Your task to perform on an android device: delete location history Image 0: 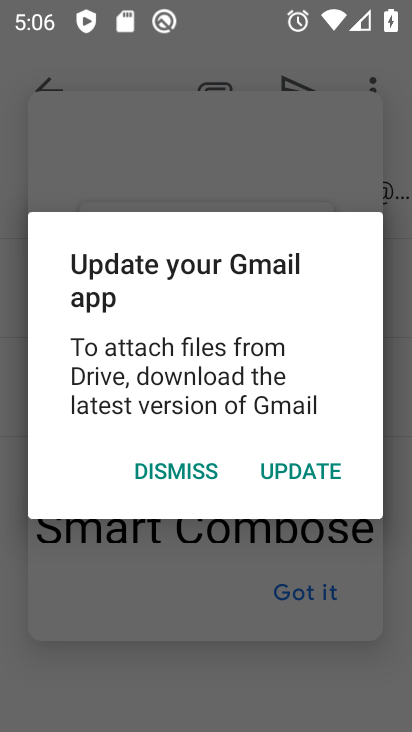
Step 0: press home button
Your task to perform on an android device: delete location history Image 1: 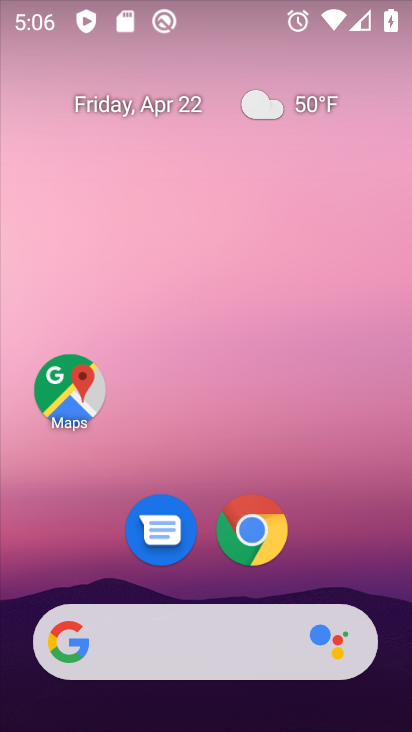
Step 1: drag from (317, 553) to (313, 72)
Your task to perform on an android device: delete location history Image 2: 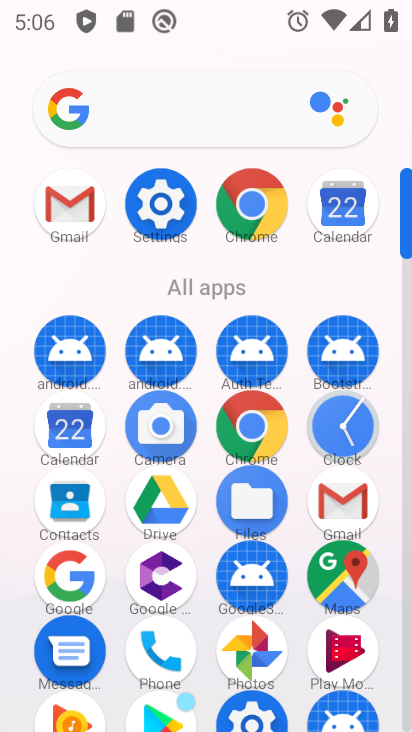
Step 2: drag from (286, 310) to (300, 75)
Your task to perform on an android device: delete location history Image 3: 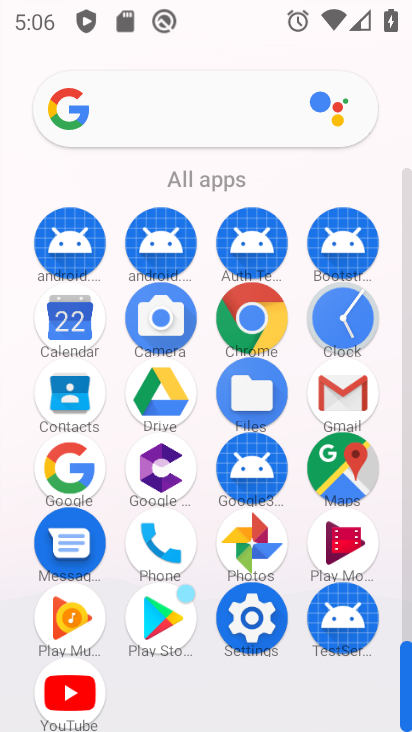
Step 3: click (322, 473)
Your task to perform on an android device: delete location history Image 4: 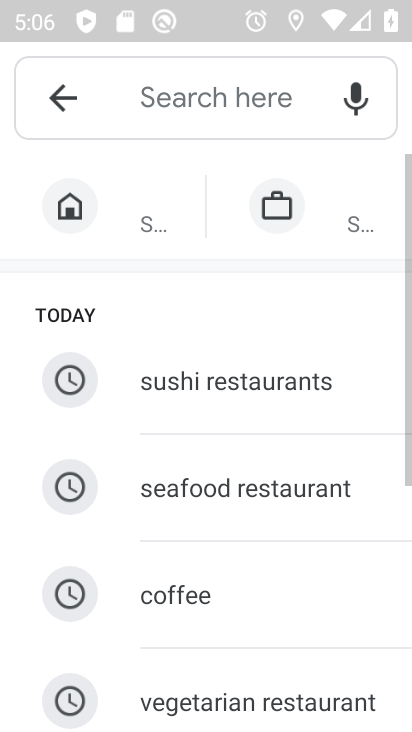
Step 4: click (55, 96)
Your task to perform on an android device: delete location history Image 5: 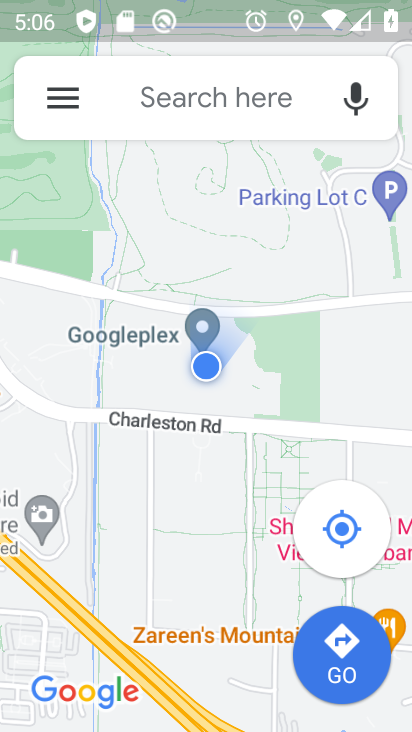
Step 5: click (57, 86)
Your task to perform on an android device: delete location history Image 6: 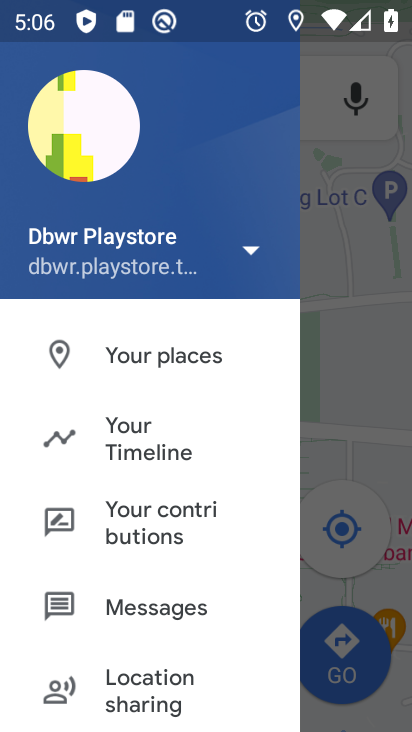
Step 6: click (144, 434)
Your task to perform on an android device: delete location history Image 7: 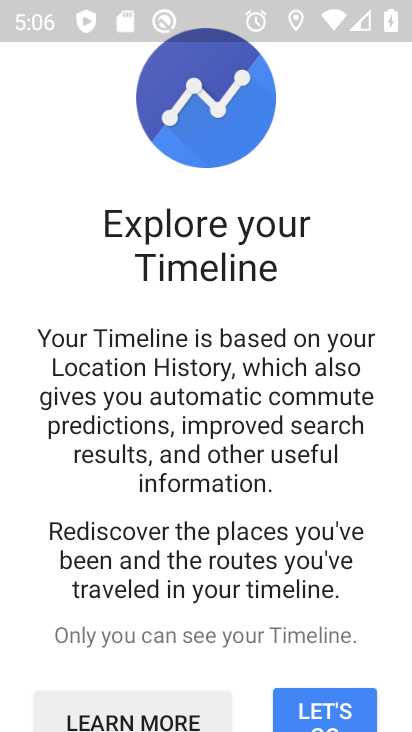
Step 7: click (321, 711)
Your task to perform on an android device: delete location history Image 8: 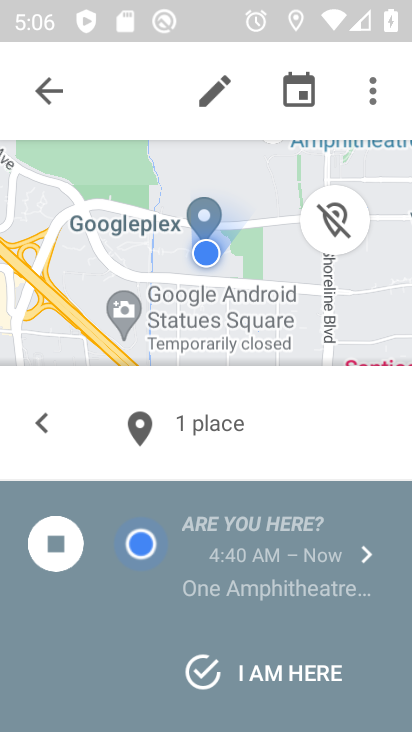
Step 8: click (368, 93)
Your task to perform on an android device: delete location history Image 9: 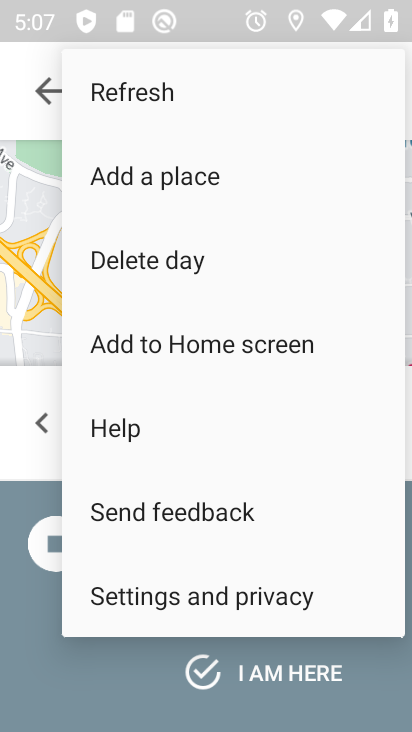
Step 9: click (179, 604)
Your task to perform on an android device: delete location history Image 10: 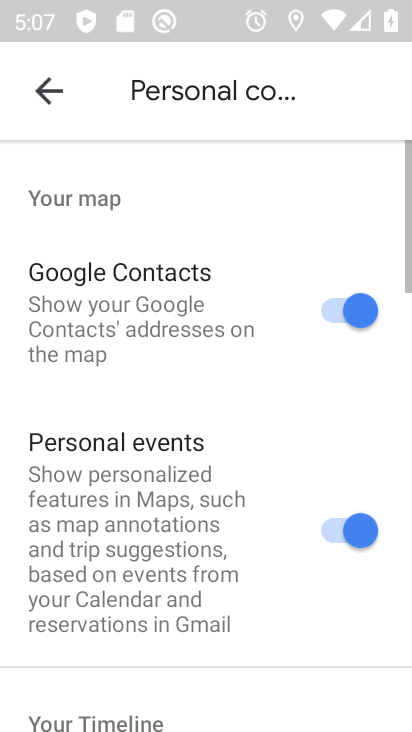
Step 10: drag from (255, 667) to (262, 191)
Your task to perform on an android device: delete location history Image 11: 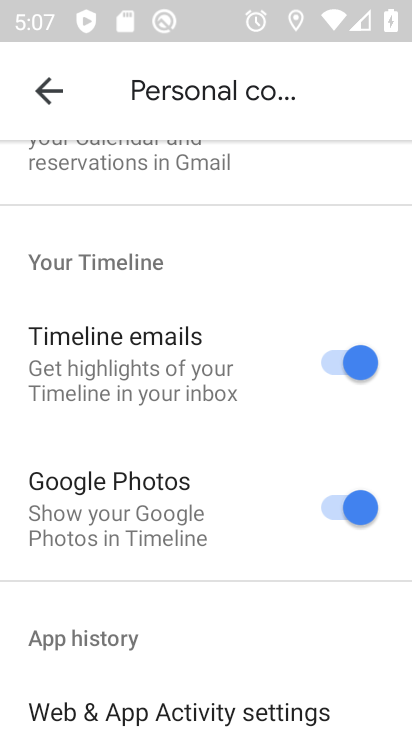
Step 11: drag from (283, 645) to (251, 188)
Your task to perform on an android device: delete location history Image 12: 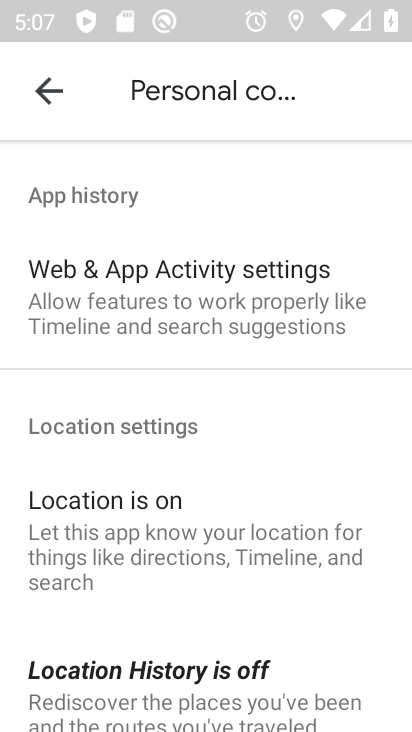
Step 12: drag from (355, 628) to (345, 347)
Your task to perform on an android device: delete location history Image 13: 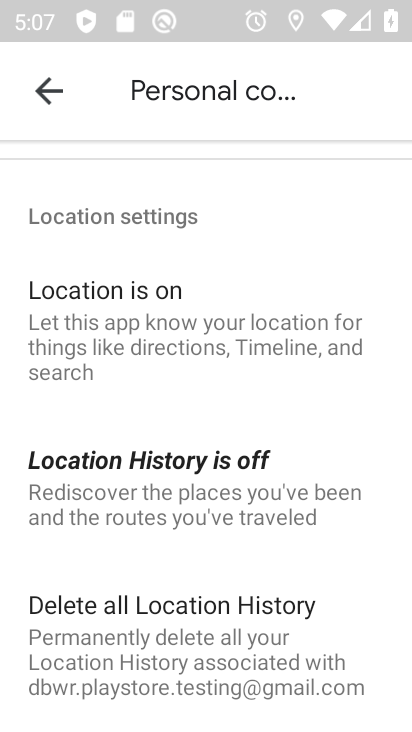
Step 13: click (180, 477)
Your task to perform on an android device: delete location history Image 14: 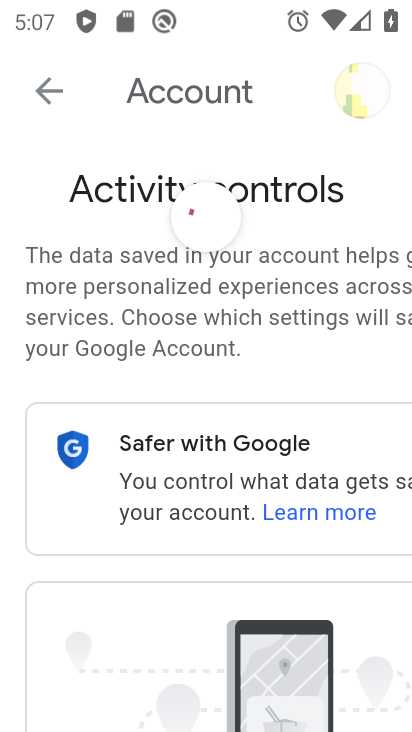
Step 14: press back button
Your task to perform on an android device: delete location history Image 15: 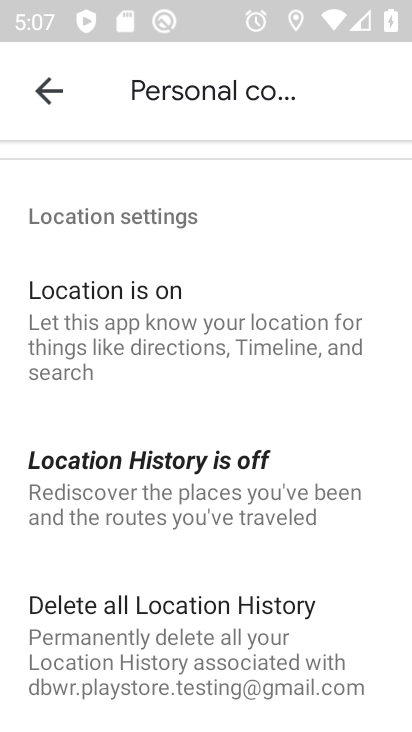
Step 15: click (235, 607)
Your task to perform on an android device: delete location history Image 16: 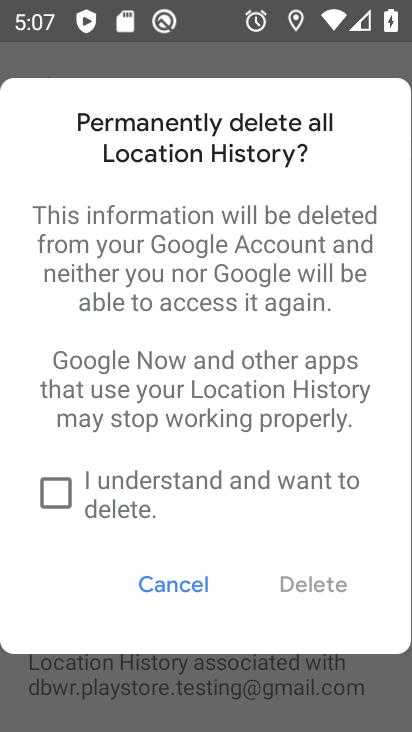
Step 16: click (54, 497)
Your task to perform on an android device: delete location history Image 17: 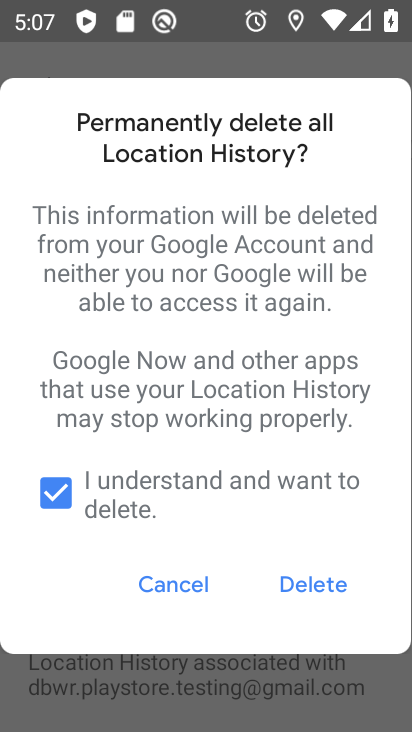
Step 17: click (300, 573)
Your task to perform on an android device: delete location history Image 18: 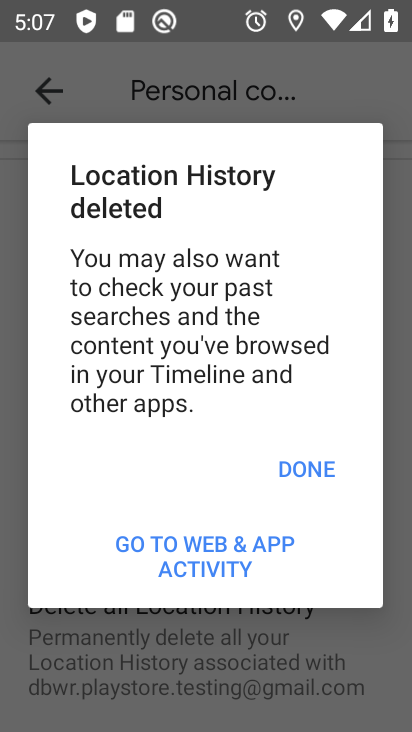
Step 18: click (291, 464)
Your task to perform on an android device: delete location history Image 19: 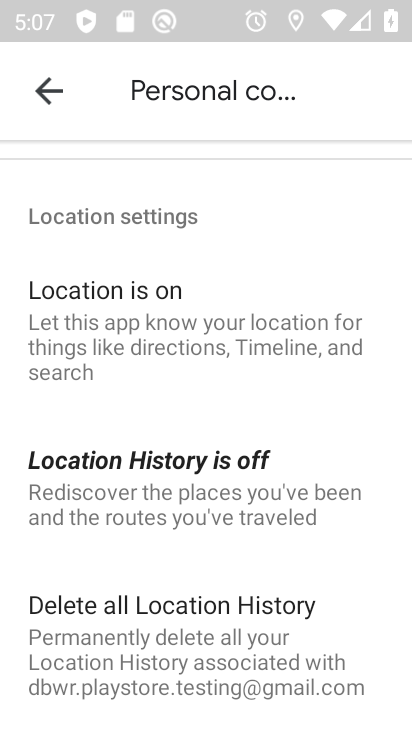
Step 19: task complete